Your task to perform on an android device: Open location settings Image 0: 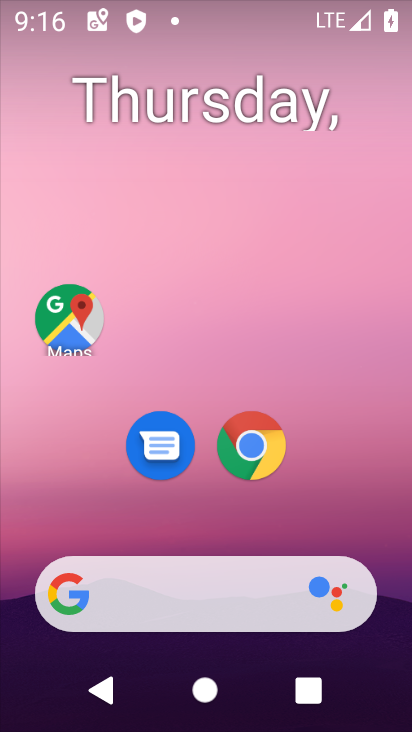
Step 0: drag from (72, 534) to (171, 112)
Your task to perform on an android device: Open location settings Image 1: 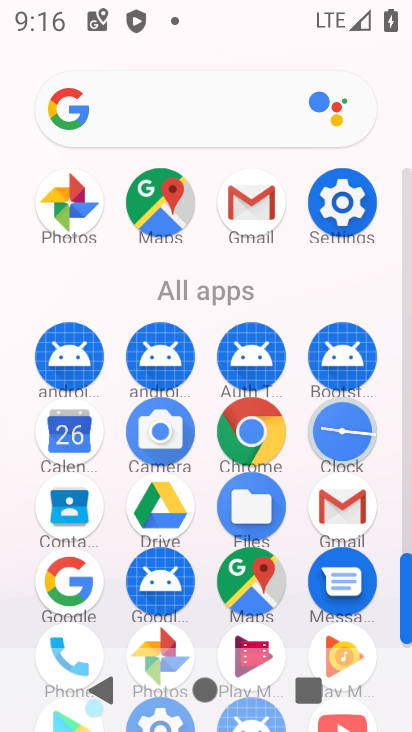
Step 1: drag from (168, 624) to (255, 341)
Your task to perform on an android device: Open location settings Image 2: 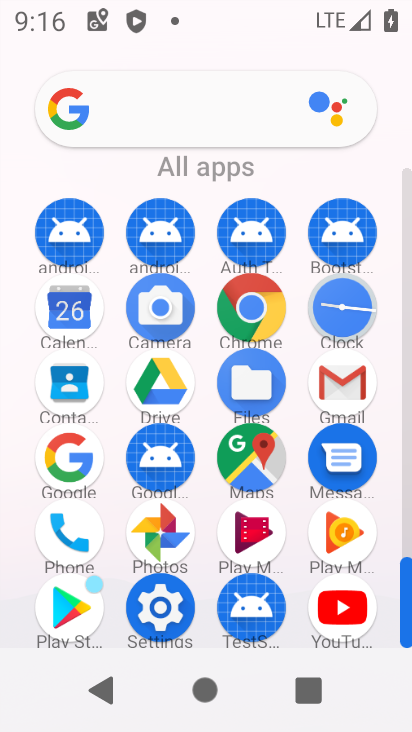
Step 2: click (171, 599)
Your task to perform on an android device: Open location settings Image 3: 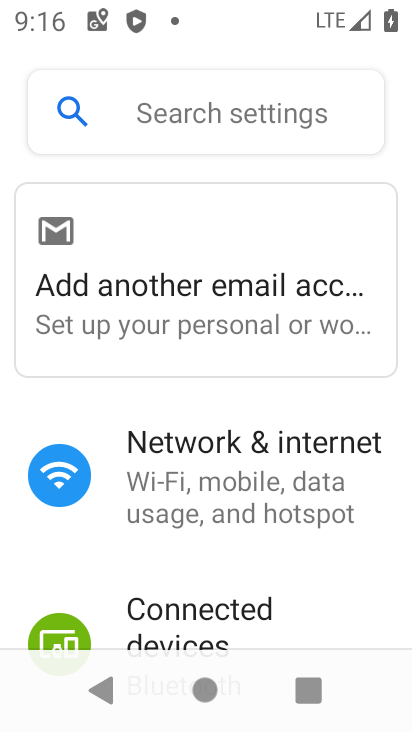
Step 3: drag from (89, 630) to (282, 97)
Your task to perform on an android device: Open location settings Image 4: 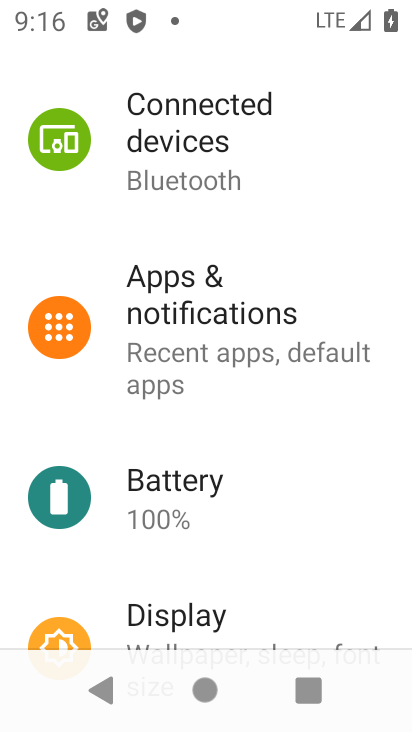
Step 4: drag from (100, 573) to (251, 116)
Your task to perform on an android device: Open location settings Image 5: 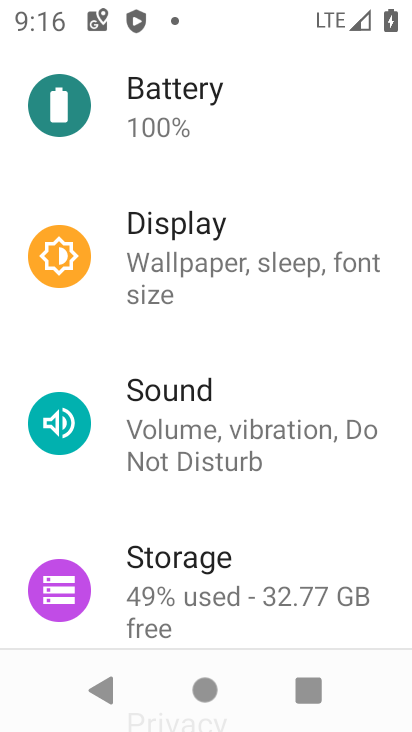
Step 5: drag from (164, 591) to (247, 147)
Your task to perform on an android device: Open location settings Image 6: 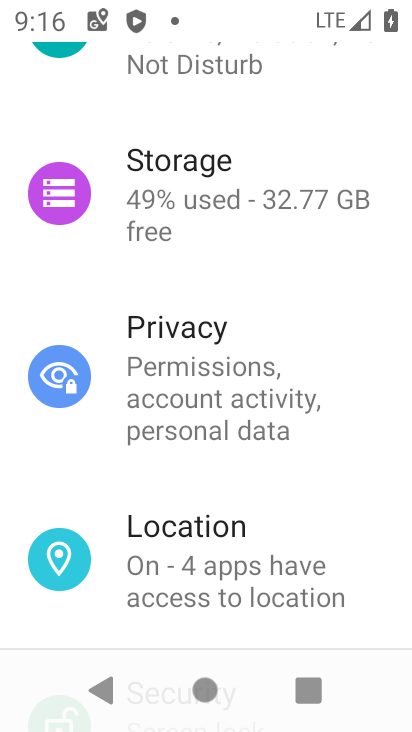
Step 6: click (176, 525)
Your task to perform on an android device: Open location settings Image 7: 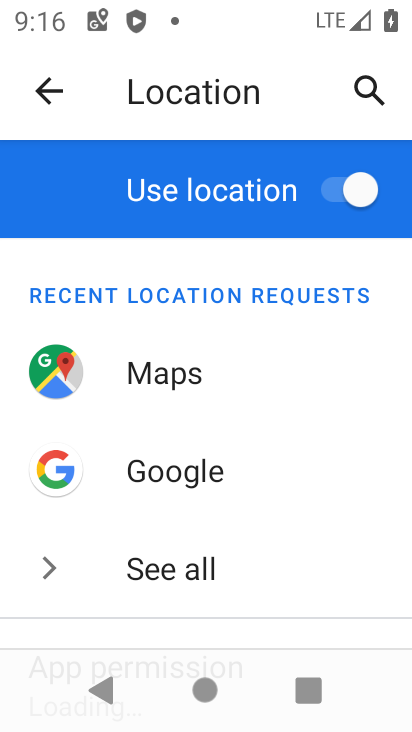
Step 7: task complete